Your task to perform on an android device: Open Android settings Image 0: 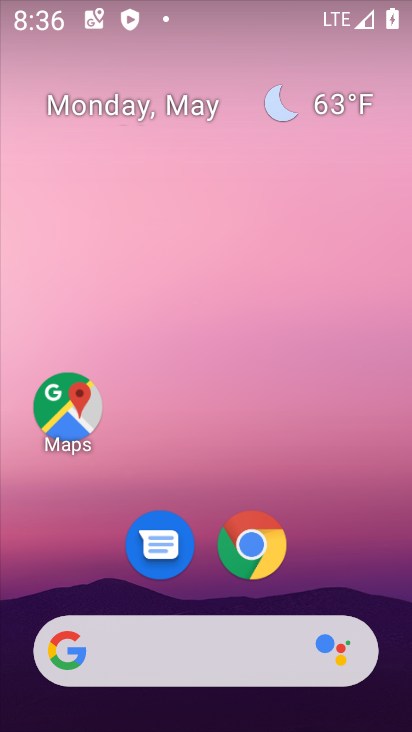
Step 0: drag from (201, 625) to (199, 17)
Your task to perform on an android device: Open Android settings Image 1: 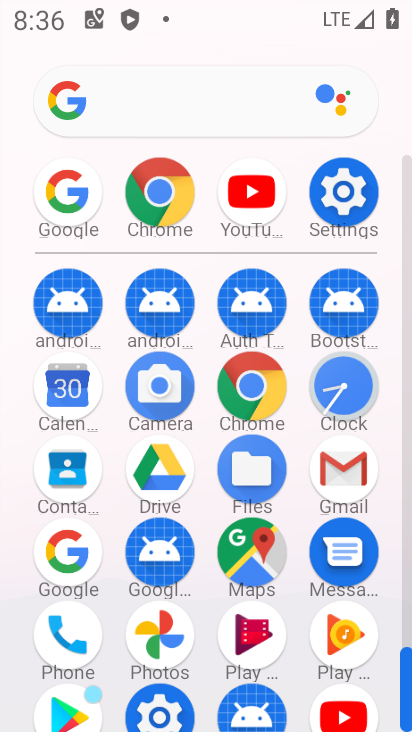
Step 1: click (323, 186)
Your task to perform on an android device: Open Android settings Image 2: 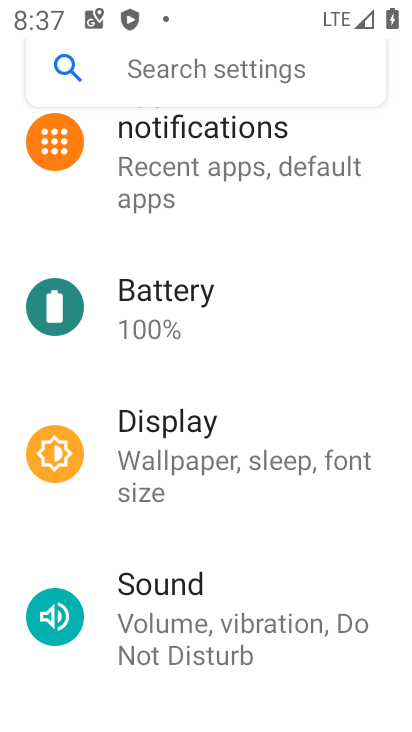
Step 2: task complete